Your task to perform on an android device: Go to Maps Image 0: 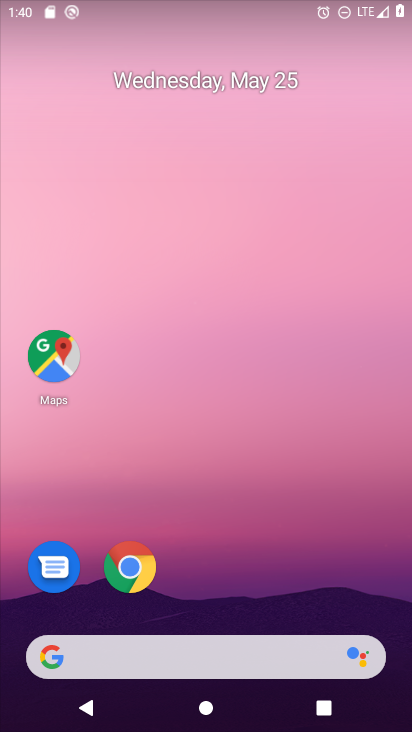
Step 0: click (63, 344)
Your task to perform on an android device: Go to Maps Image 1: 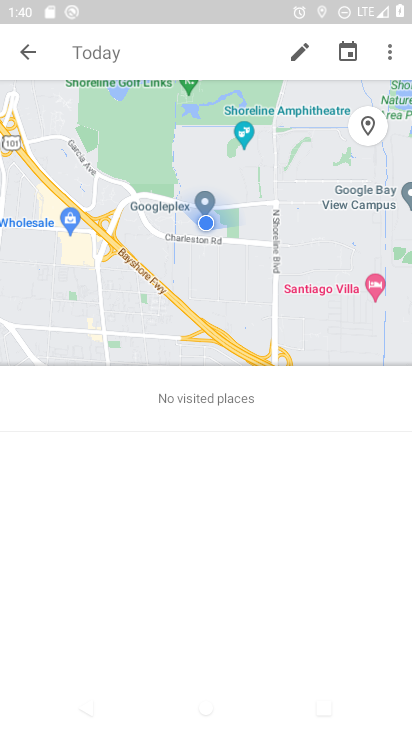
Step 1: task complete